Your task to perform on an android device: Turn on the flashlight Image 0: 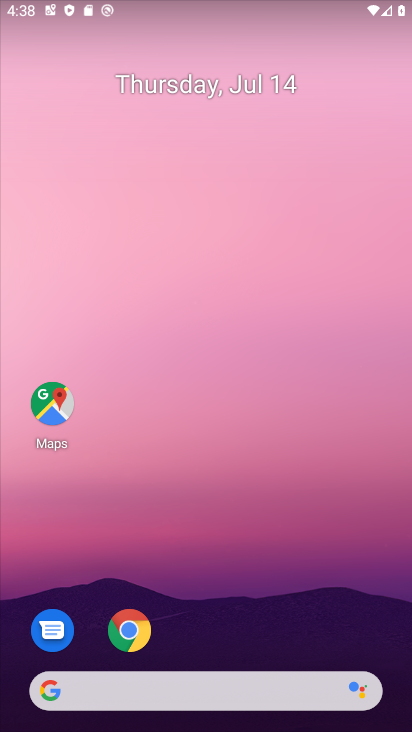
Step 0: drag from (177, 656) to (208, 313)
Your task to perform on an android device: Turn on the flashlight Image 1: 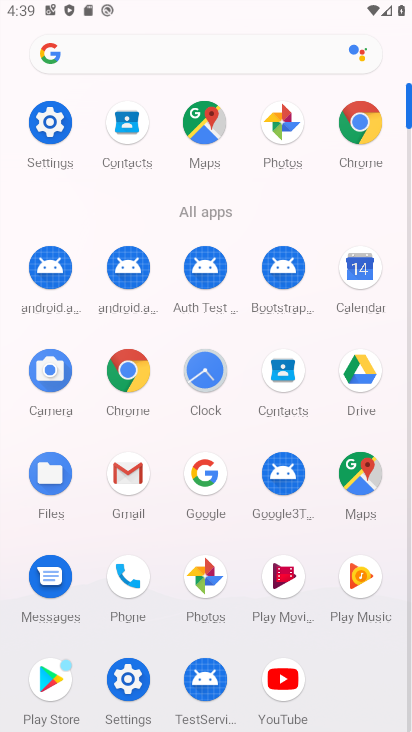
Step 1: click (46, 107)
Your task to perform on an android device: Turn on the flashlight Image 2: 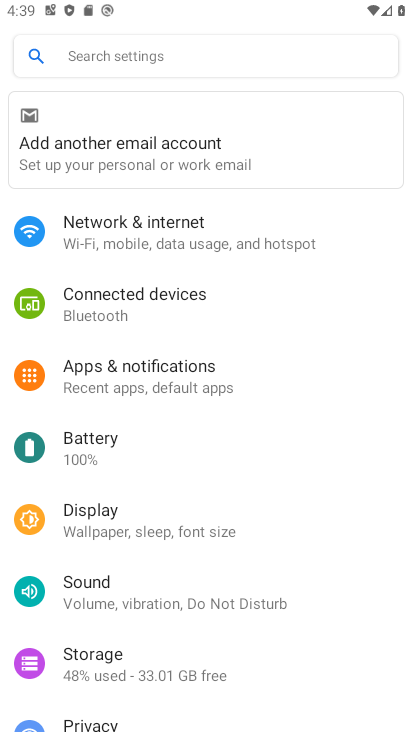
Step 2: task complete